Your task to perform on an android device: What is the capital of Italy? Image 0: 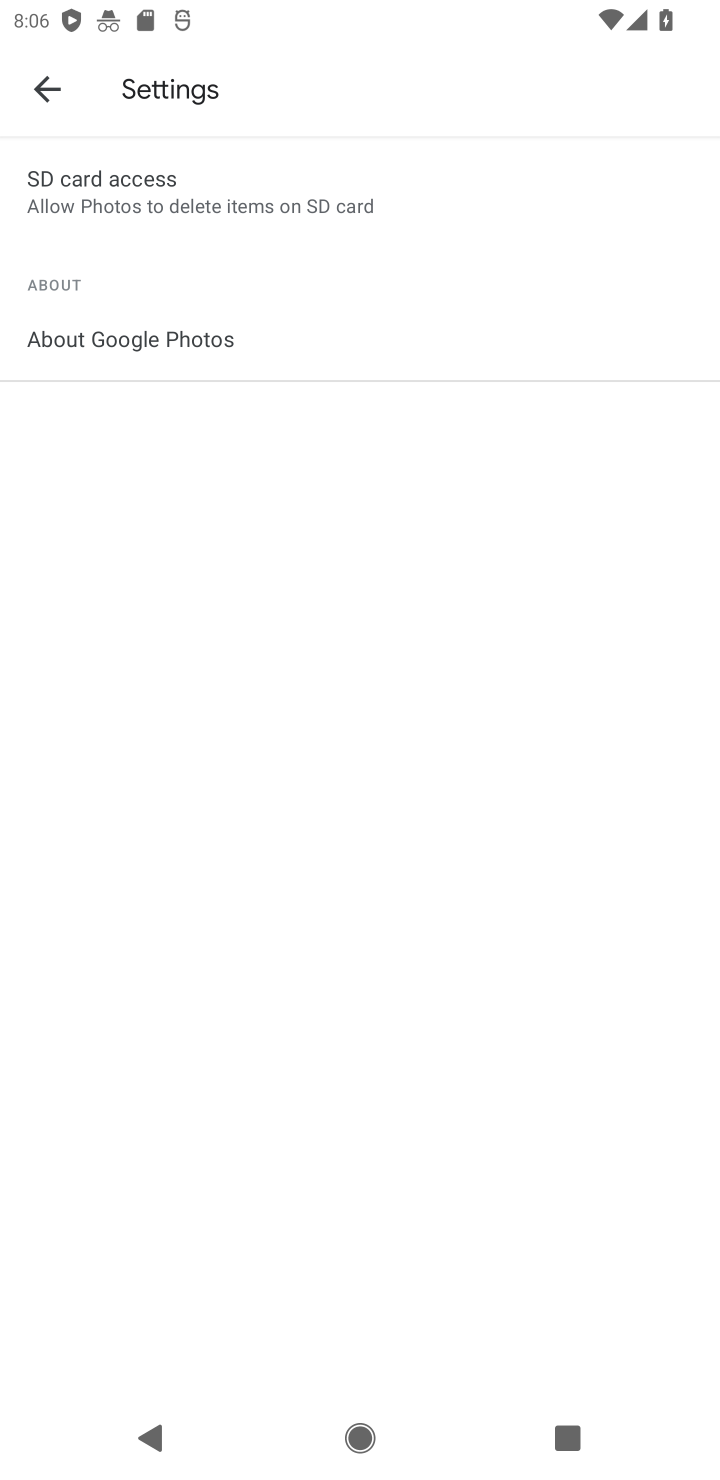
Step 0: press home button
Your task to perform on an android device: What is the capital of Italy? Image 1: 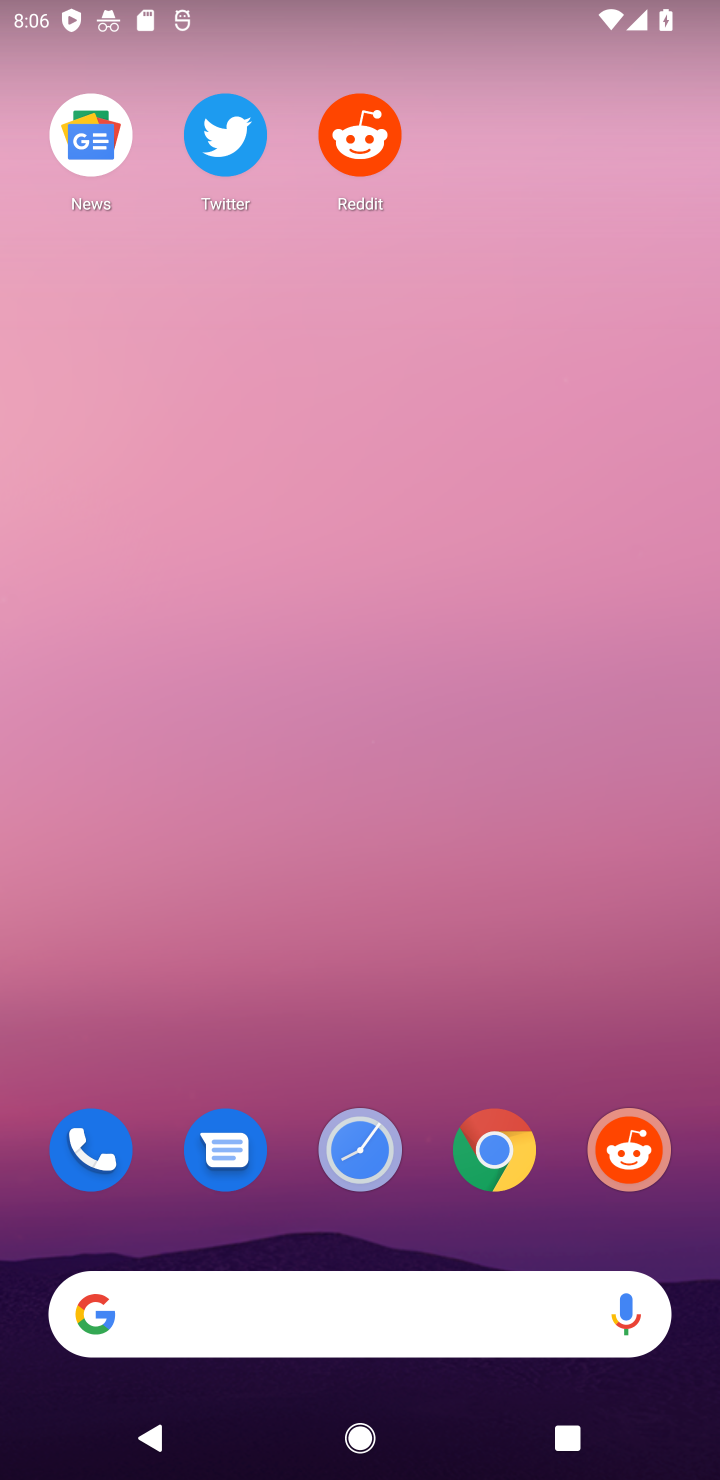
Step 1: click (497, 1153)
Your task to perform on an android device: What is the capital of Italy? Image 2: 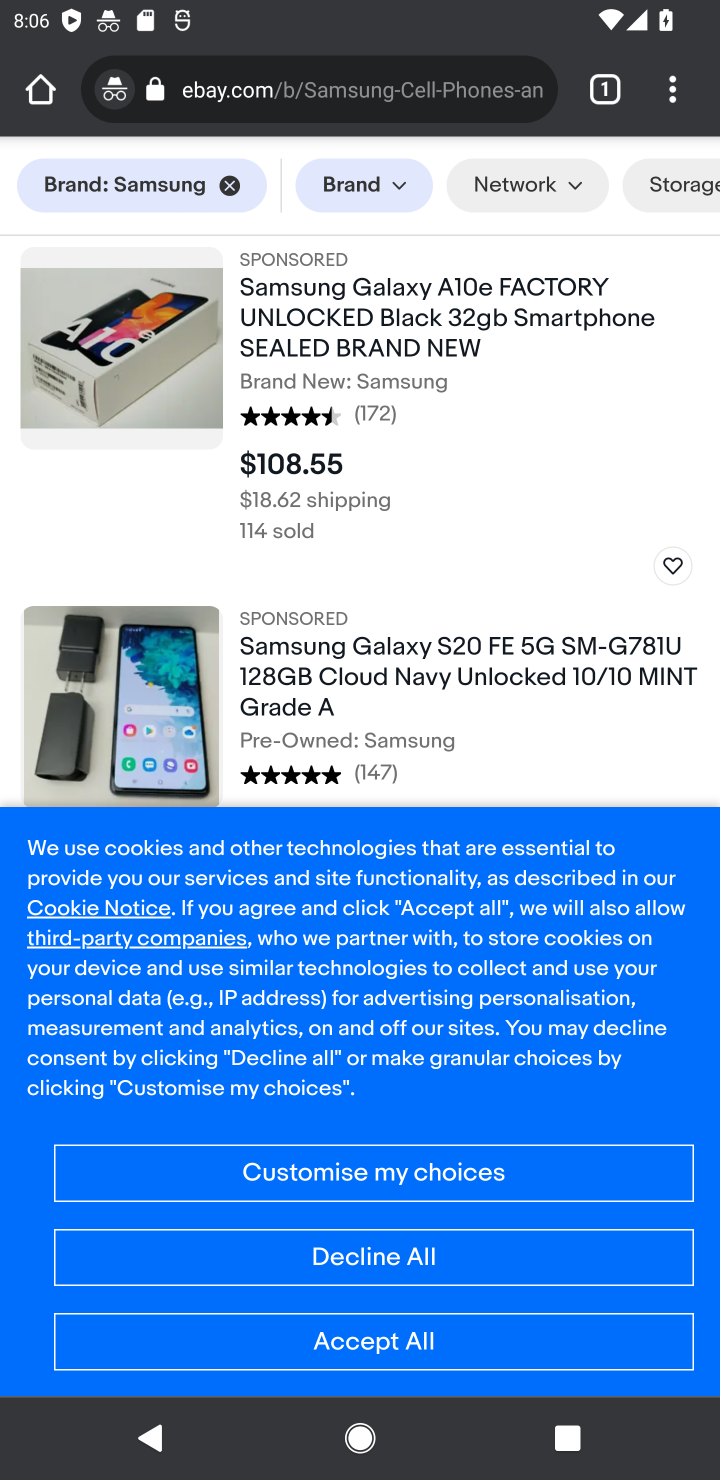
Step 2: click (301, 89)
Your task to perform on an android device: What is the capital of Italy? Image 3: 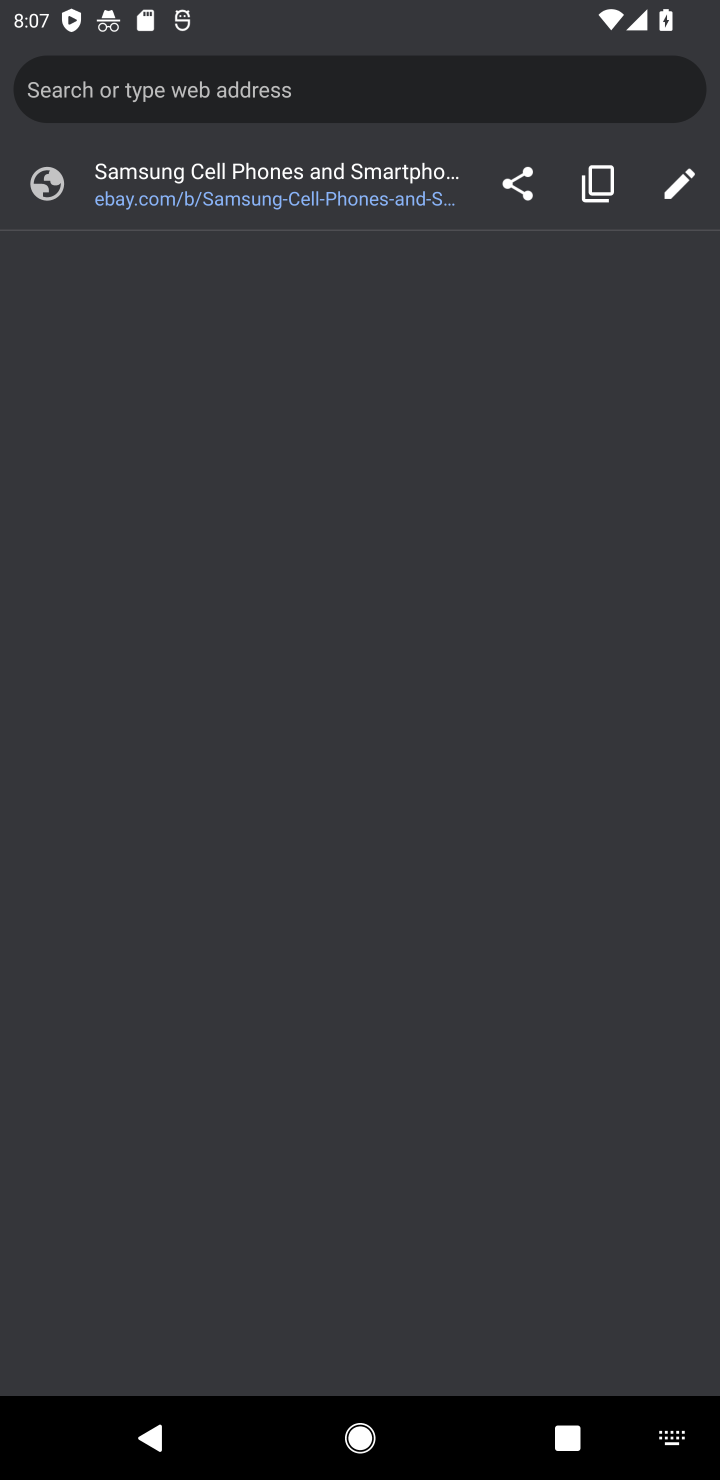
Step 3: type "capital of italy"
Your task to perform on an android device: What is the capital of Italy? Image 4: 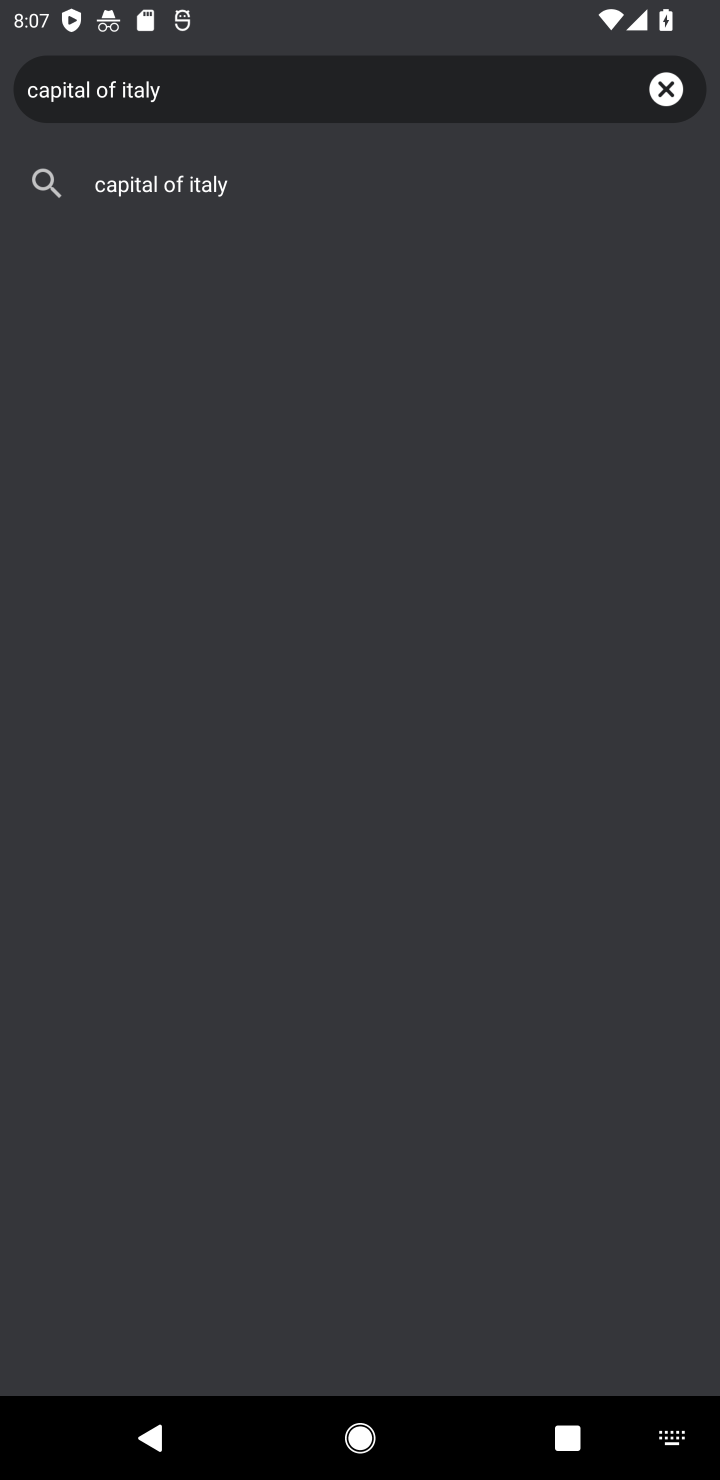
Step 4: click (124, 197)
Your task to perform on an android device: What is the capital of Italy? Image 5: 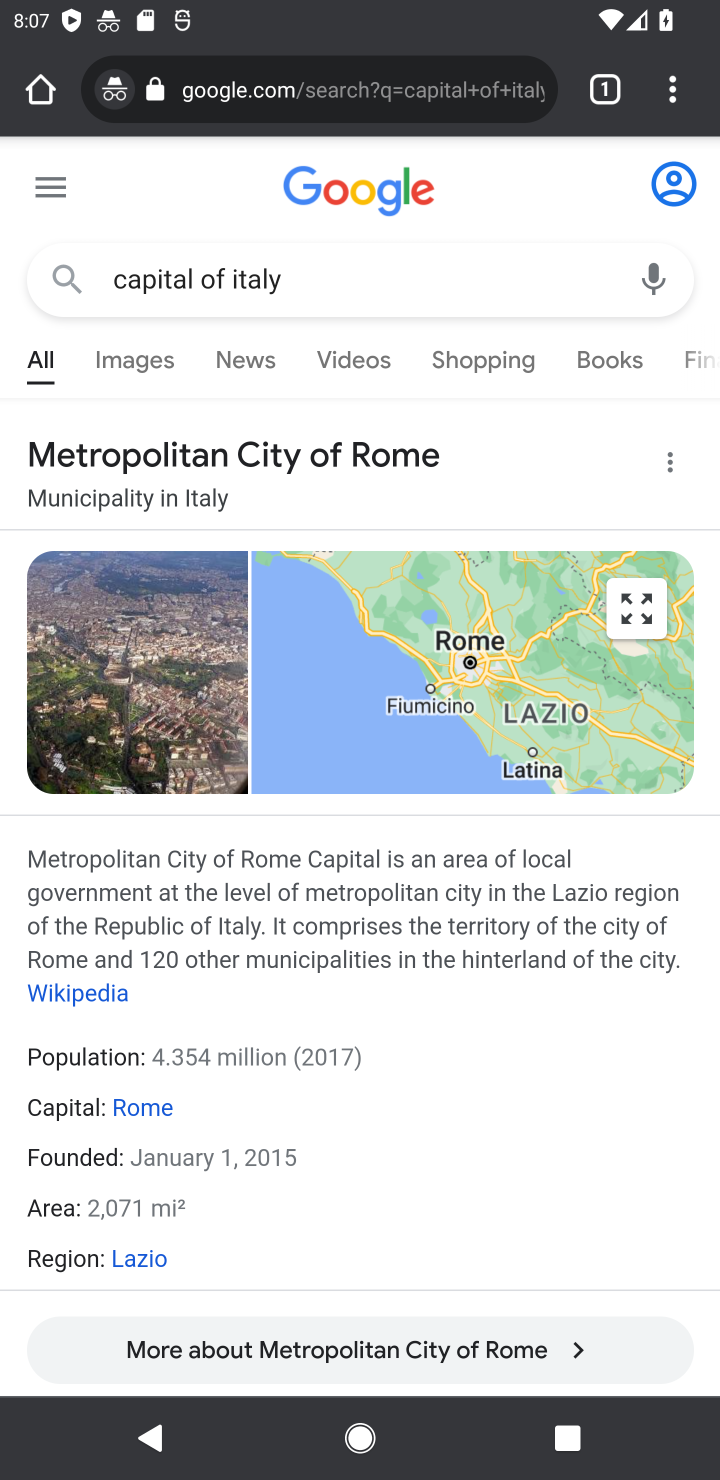
Step 5: task complete